Your task to perform on an android device: Go to ESPN.com Image 0: 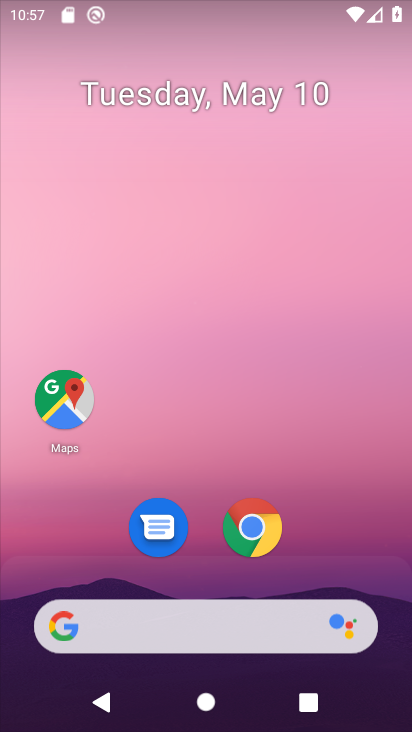
Step 0: drag from (317, 522) to (316, 180)
Your task to perform on an android device: Go to ESPN.com Image 1: 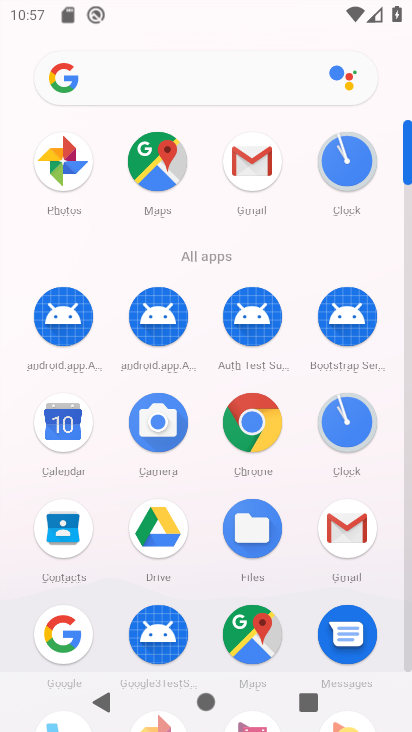
Step 1: click (252, 439)
Your task to perform on an android device: Go to ESPN.com Image 2: 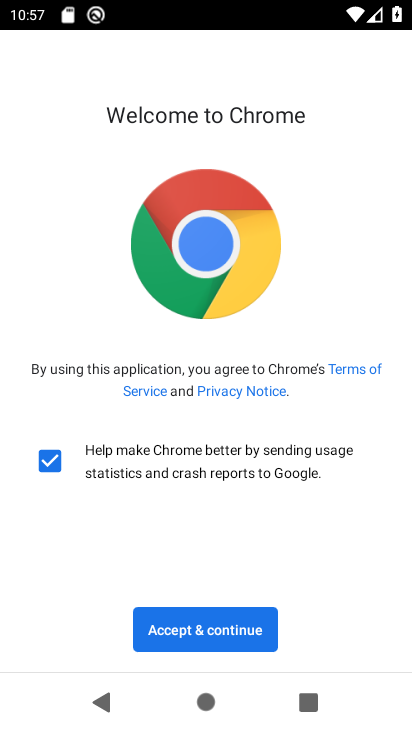
Step 2: click (206, 644)
Your task to perform on an android device: Go to ESPN.com Image 3: 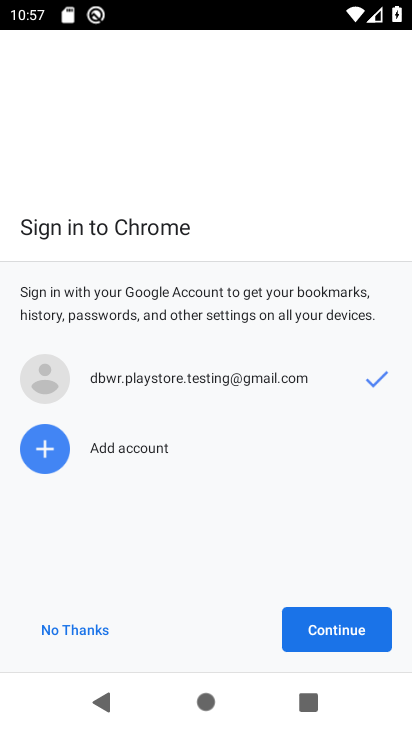
Step 3: click (333, 626)
Your task to perform on an android device: Go to ESPN.com Image 4: 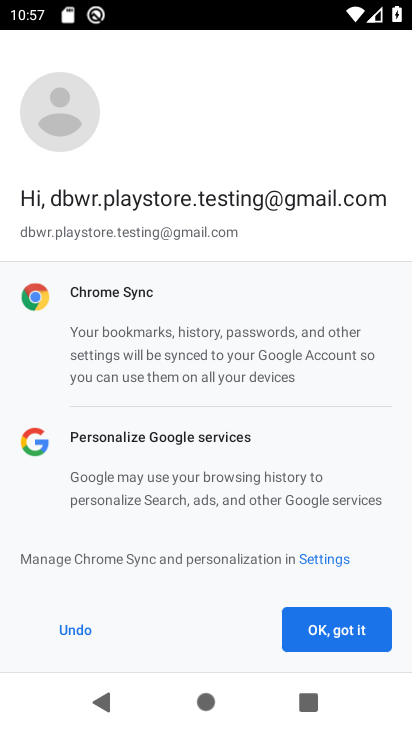
Step 4: click (333, 626)
Your task to perform on an android device: Go to ESPN.com Image 5: 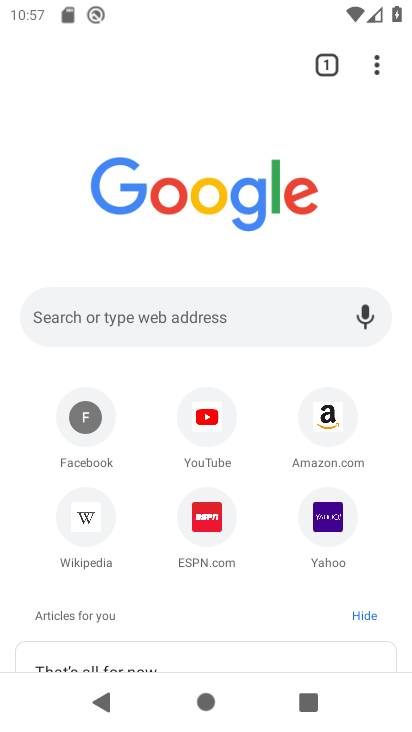
Step 5: click (178, 325)
Your task to perform on an android device: Go to ESPN.com Image 6: 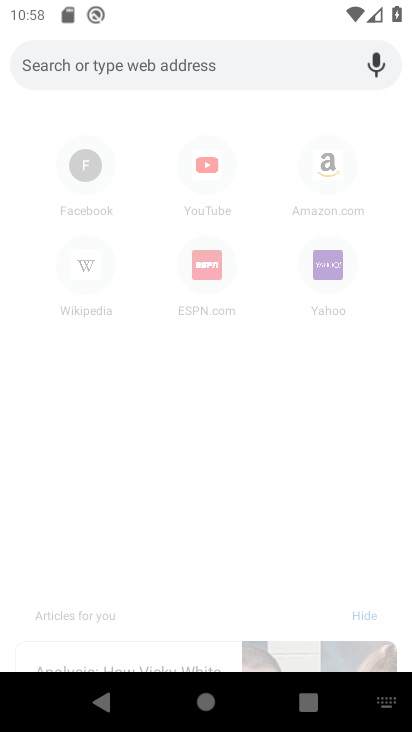
Step 6: type "espn.com"
Your task to perform on an android device: Go to ESPN.com Image 7: 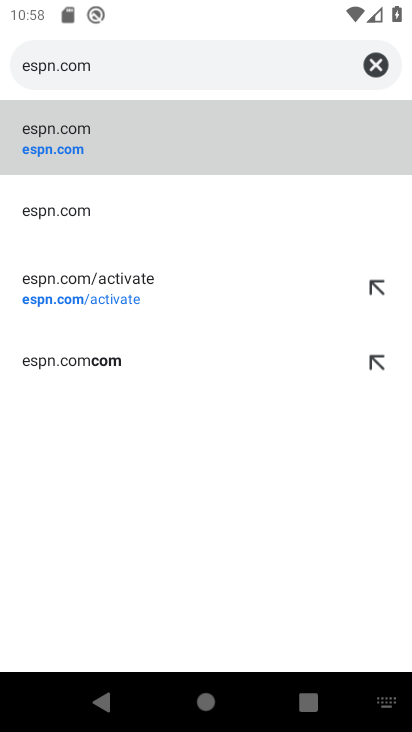
Step 7: click (19, 152)
Your task to perform on an android device: Go to ESPN.com Image 8: 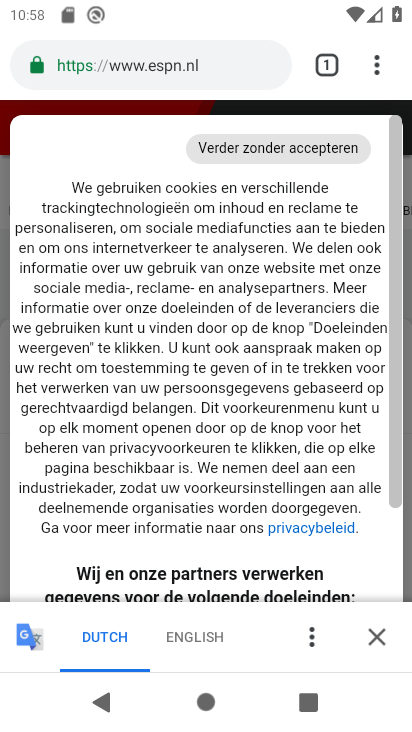
Step 8: task complete